Your task to perform on an android device: turn pop-ups on in chrome Image 0: 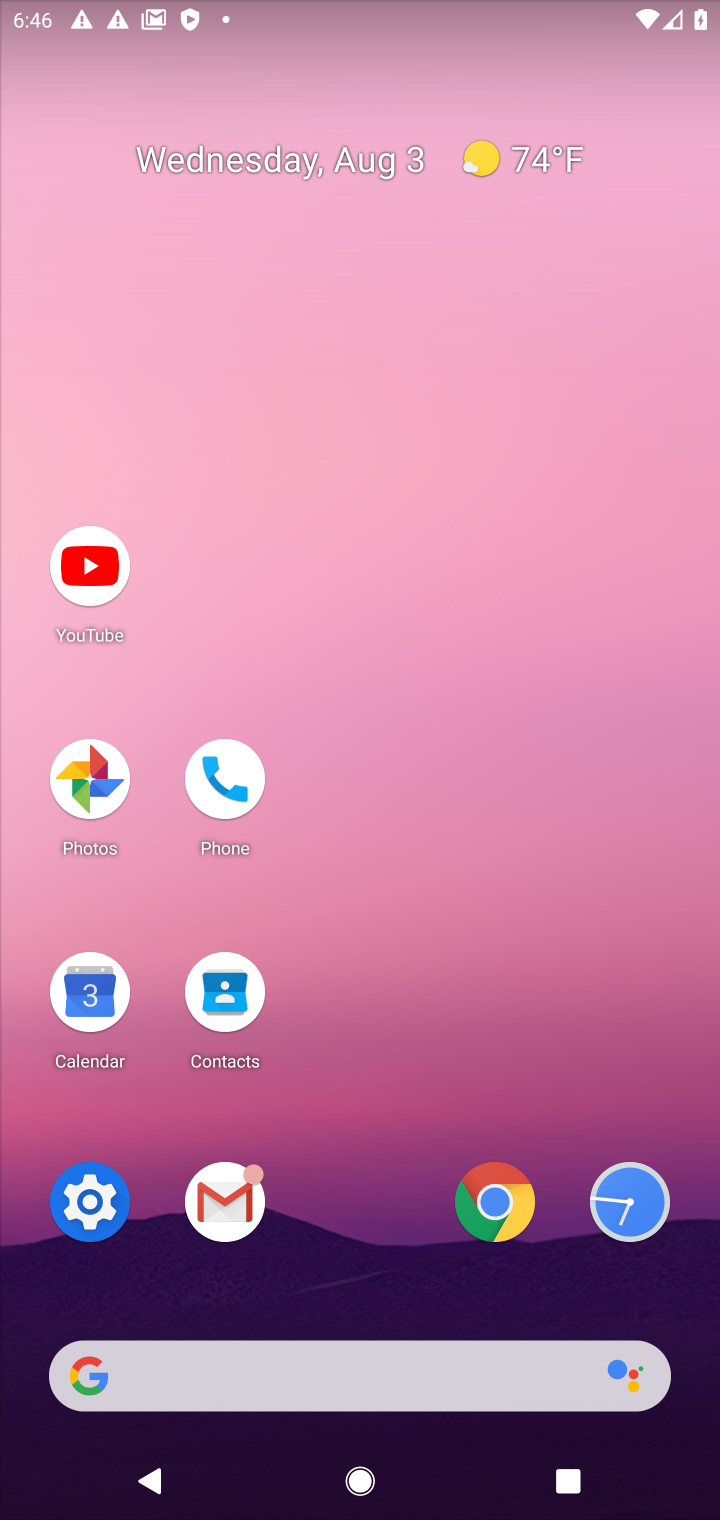
Step 0: click (500, 1202)
Your task to perform on an android device: turn pop-ups on in chrome Image 1: 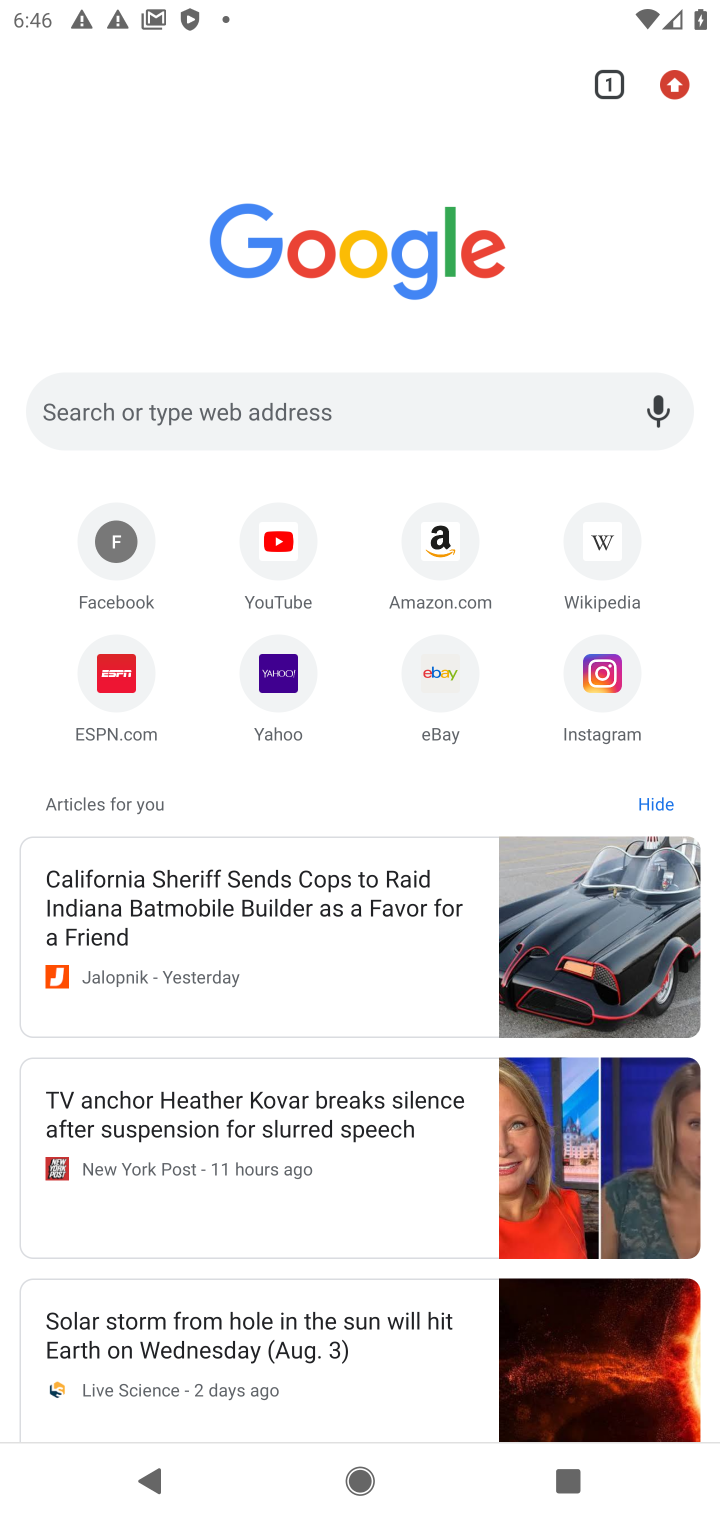
Step 1: click (667, 82)
Your task to perform on an android device: turn pop-ups on in chrome Image 2: 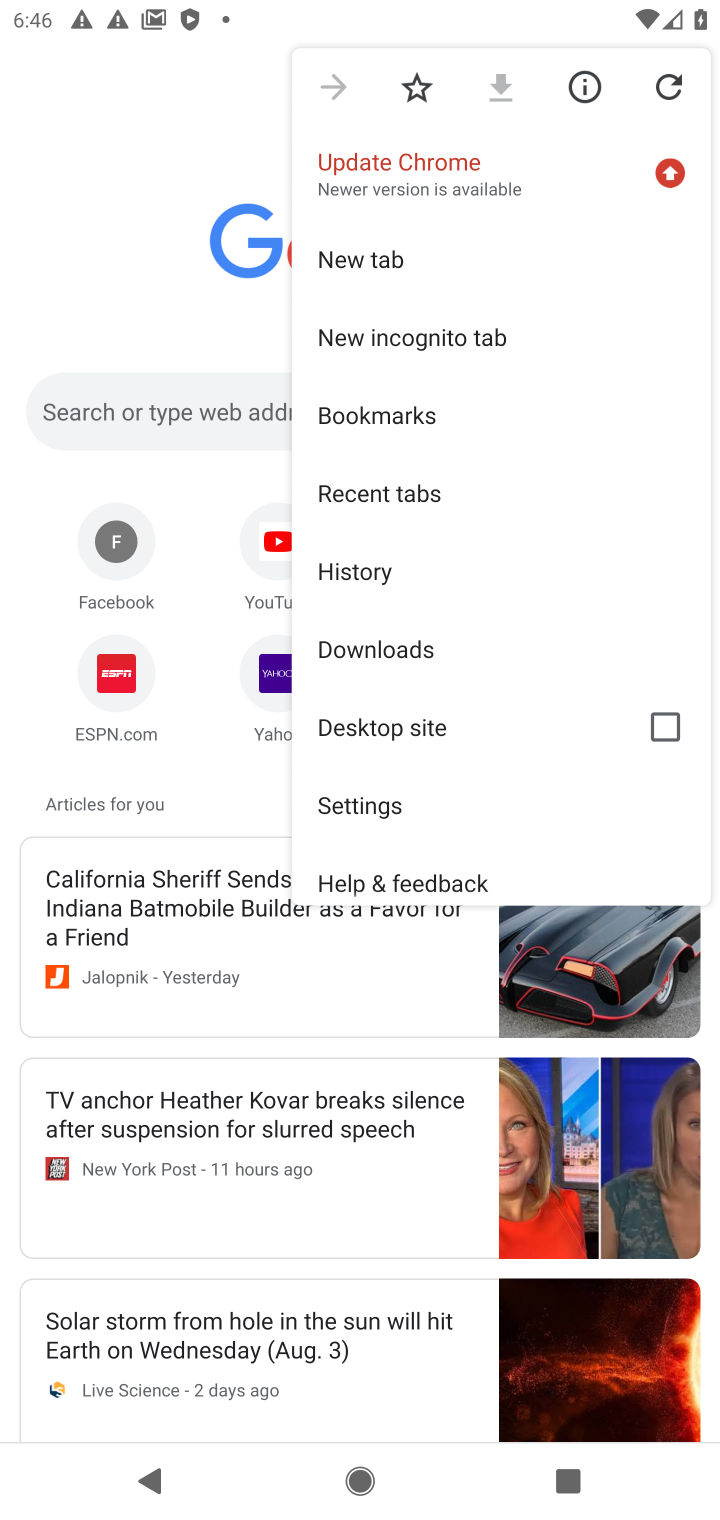
Step 2: click (368, 809)
Your task to perform on an android device: turn pop-ups on in chrome Image 3: 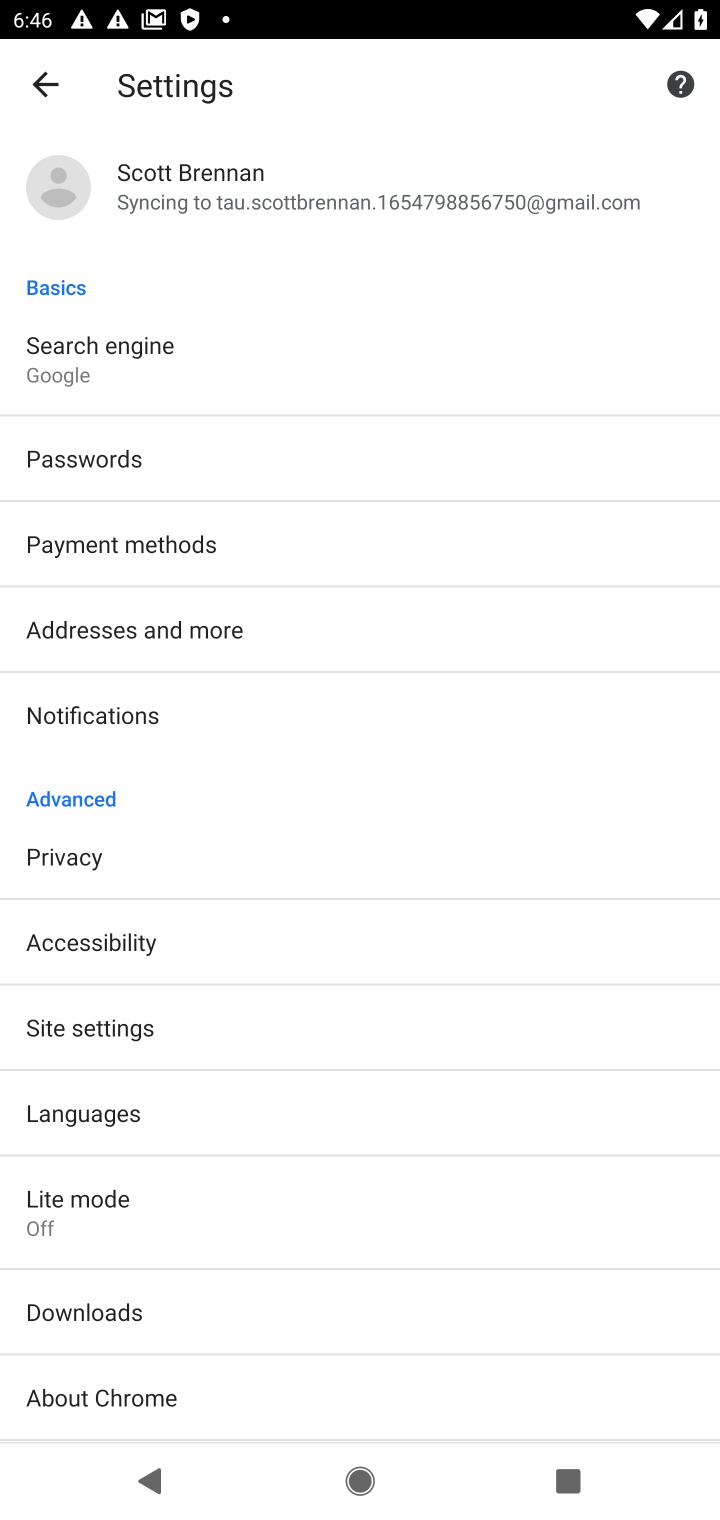
Step 3: click (107, 1023)
Your task to perform on an android device: turn pop-ups on in chrome Image 4: 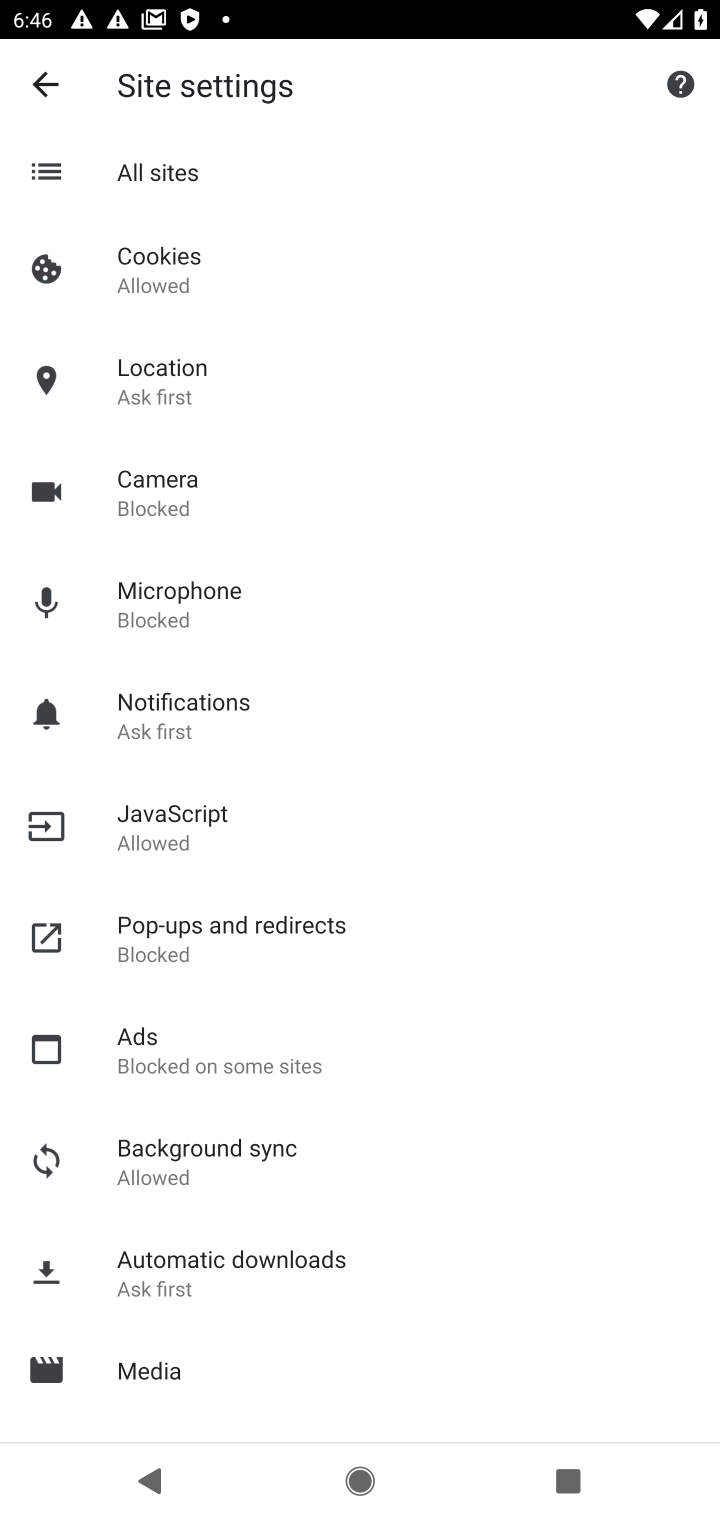
Step 4: click (202, 922)
Your task to perform on an android device: turn pop-ups on in chrome Image 5: 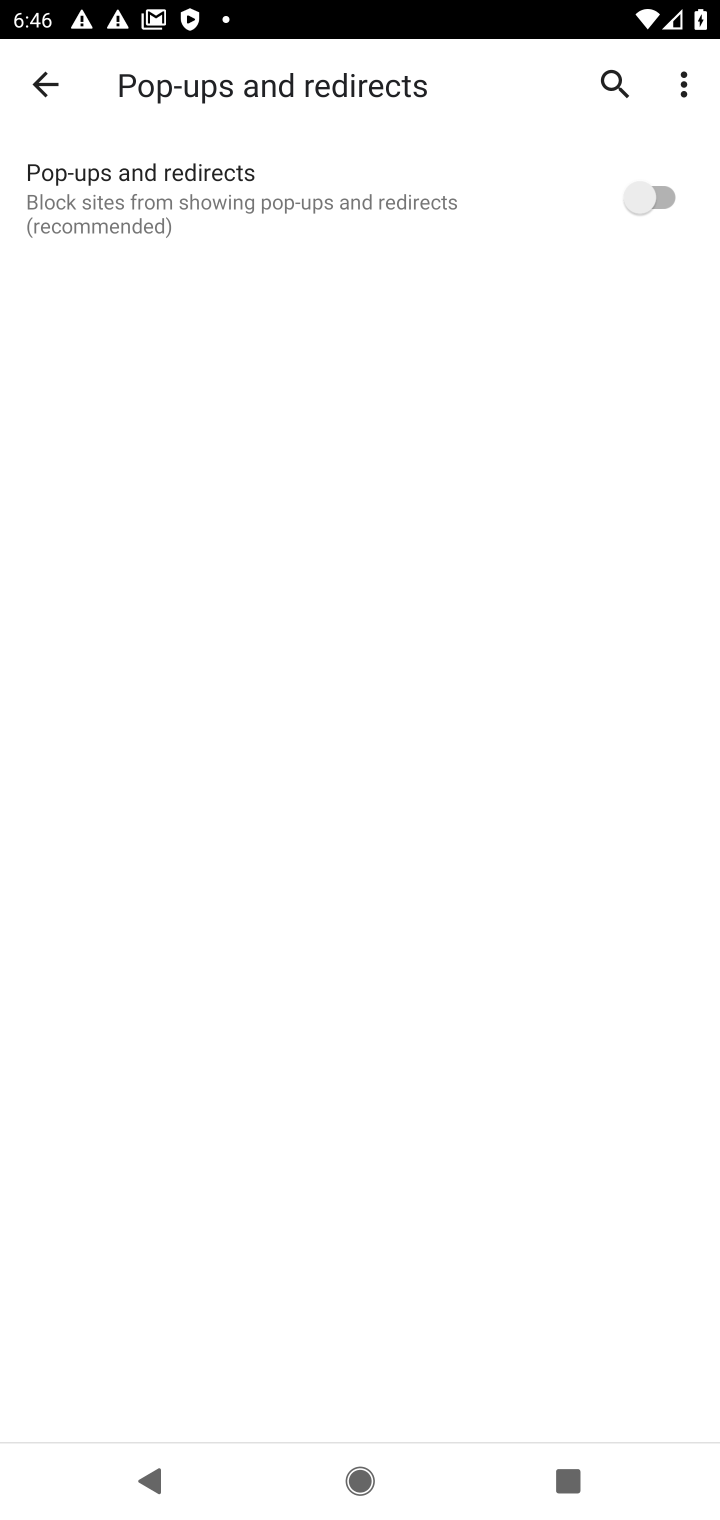
Step 5: click (639, 183)
Your task to perform on an android device: turn pop-ups on in chrome Image 6: 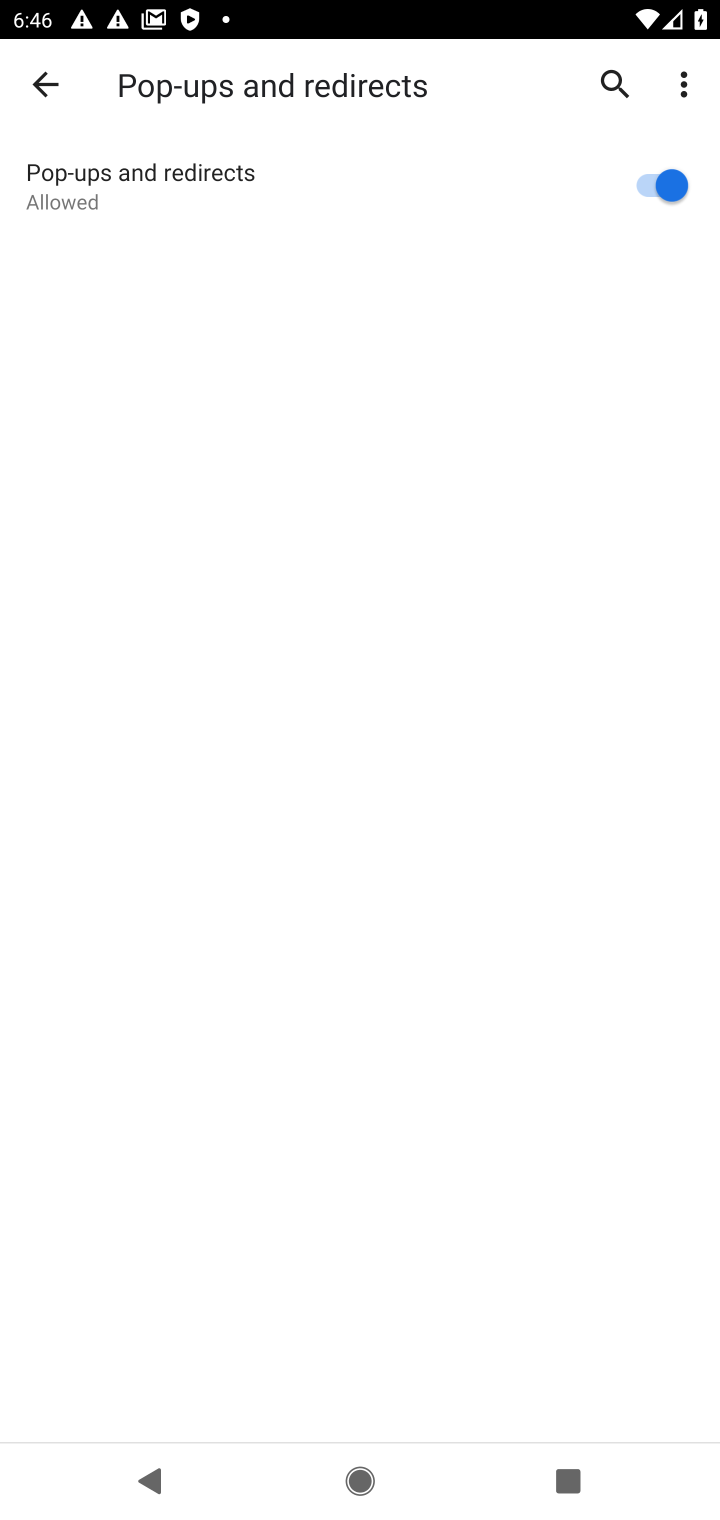
Step 6: task complete